Your task to perform on an android device: check data usage Image 0: 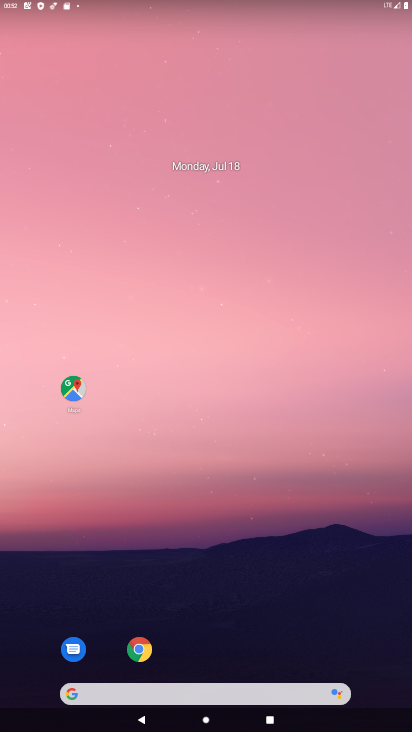
Step 0: drag from (172, 558) to (191, 49)
Your task to perform on an android device: check data usage Image 1: 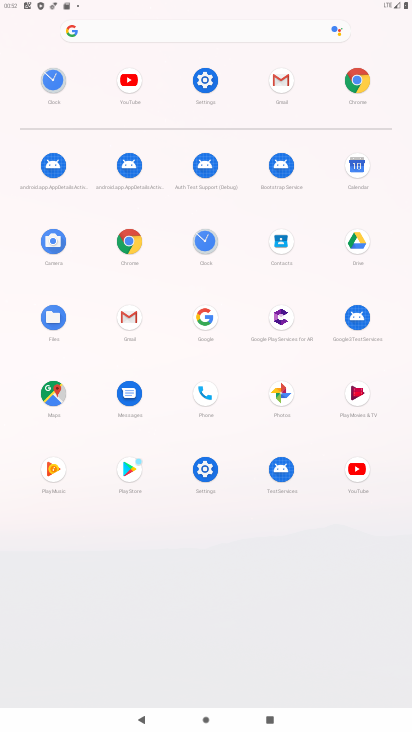
Step 1: click (205, 467)
Your task to perform on an android device: check data usage Image 2: 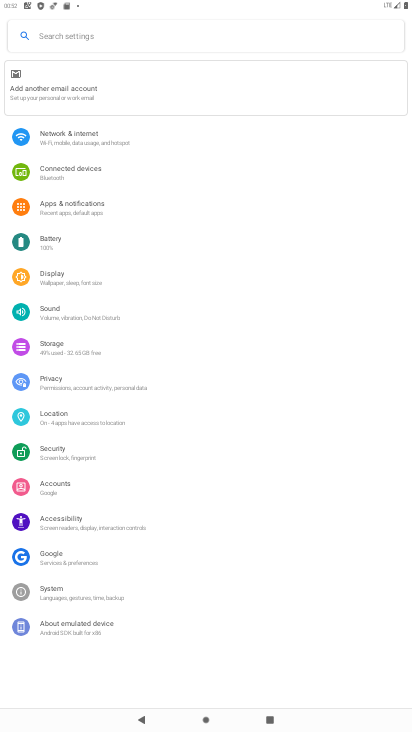
Step 2: click (101, 146)
Your task to perform on an android device: check data usage Image 3: 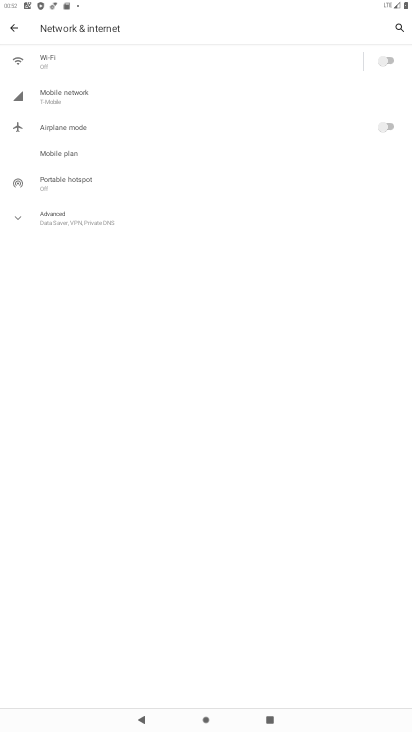
Step 3: click (124, 95)
Your task to perform on an android device: check data usage Image 4: 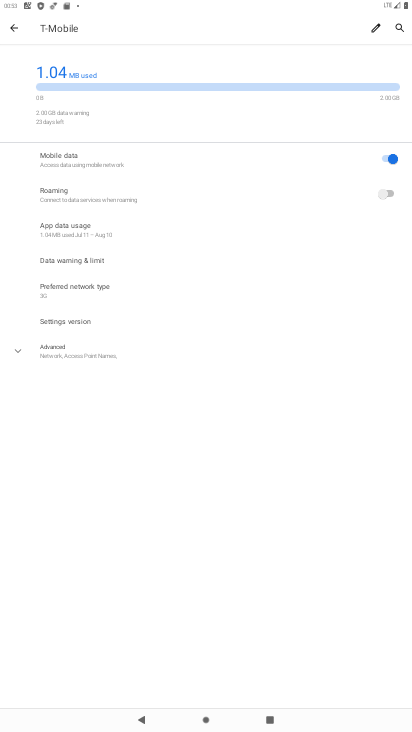
Step 4: task complete